Your task to perform on an android device: check the backup settings in the google photos Image 0: 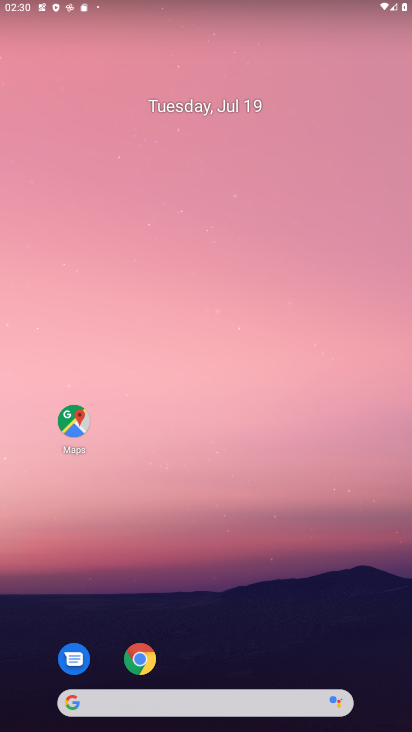
Step 0: press home button
Your task to perform on an android device: check the backup settings in the google photos Image 1: 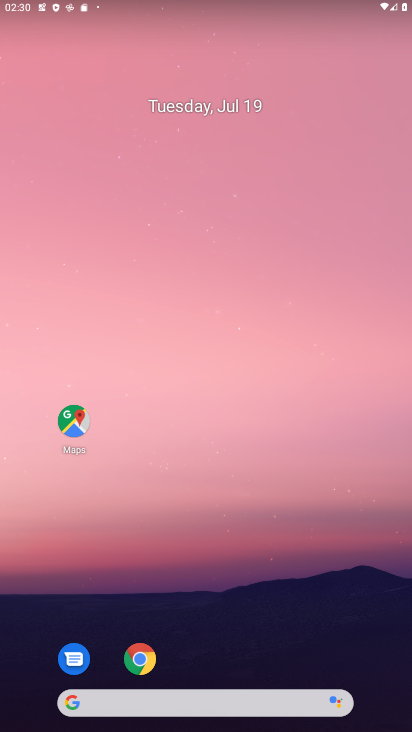
Step 1: drag from (200, 613) to (172, 84)
Your task to perform on an android device: check the backup settings in the google photos Image 2: 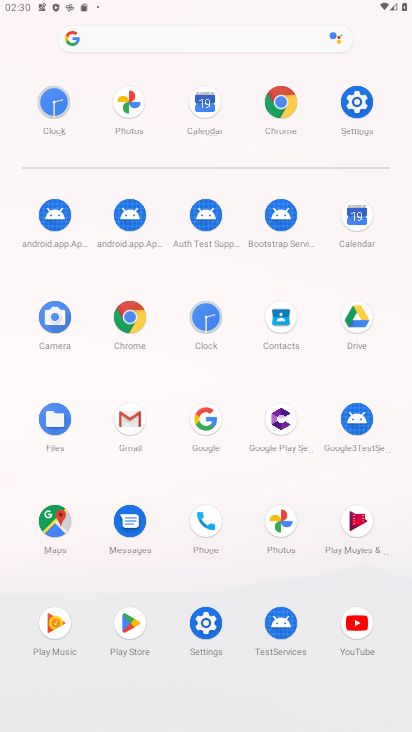
Step 2: click (277, 533)
Your task to perform on an android device: check the backup settings in the google photos Image 3: 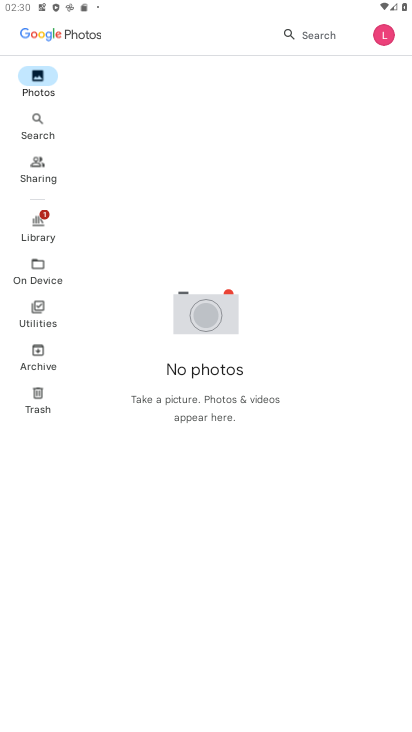
Step 3: click (389, 38)
Your task to perform on an android device: check the backup settings in the google photos Image 4: 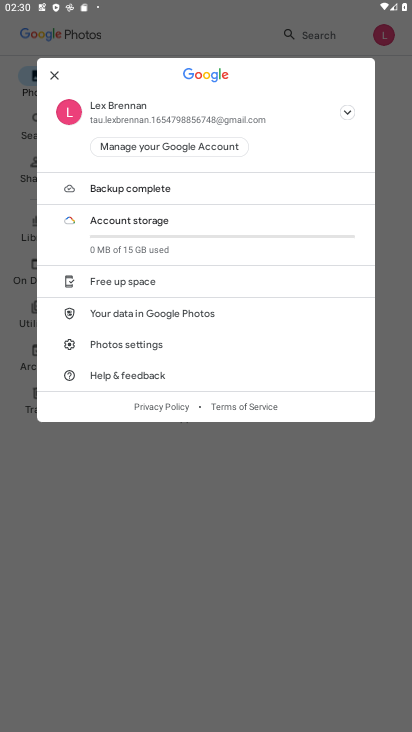
Step 4: click (118, 348)
Your task to perform on an android device: check the backup settings in the google photos Image 5: 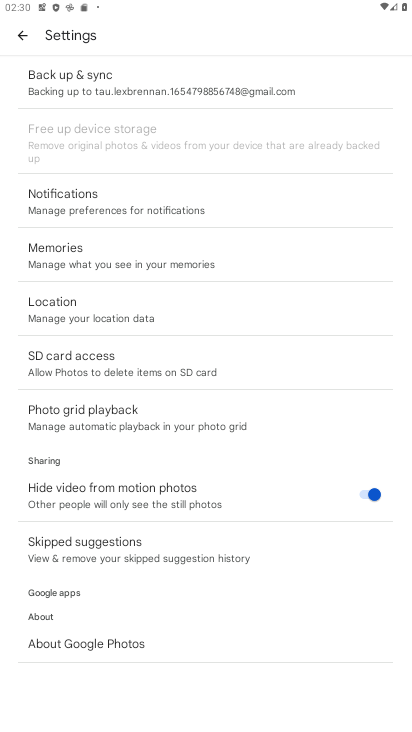
Step 5: click (101, 87)
Your task to perform on an android device: check the backup settings in the google photos Image 6: 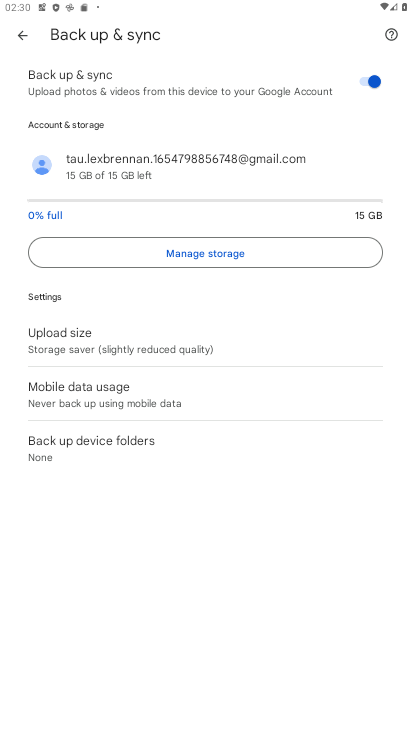
Step 6: task complete